Your task to perform on an android device: Open Google Maps Image 0: 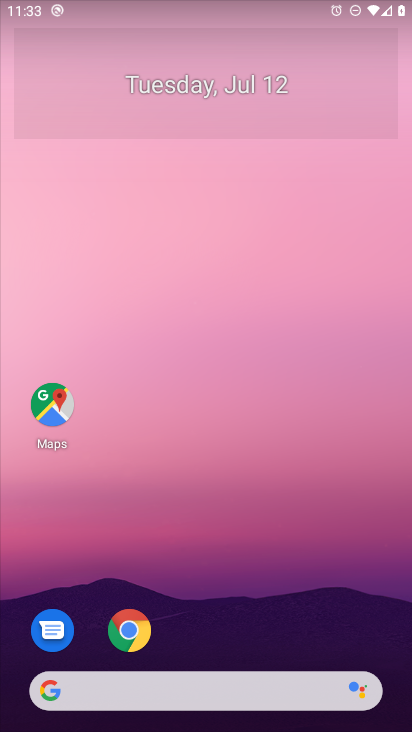
Step 0: press home button
Your task to perform on an android device: Open Google Maps Image 1: 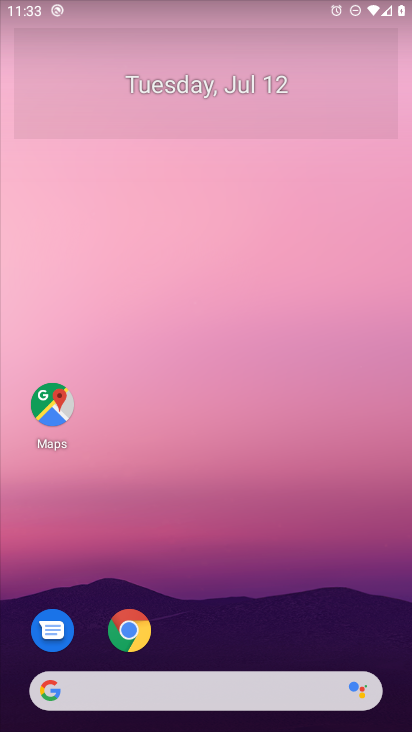
Step 1: click (48, 397)
Your task to perform on an android device: Open Google Maps Image 2: 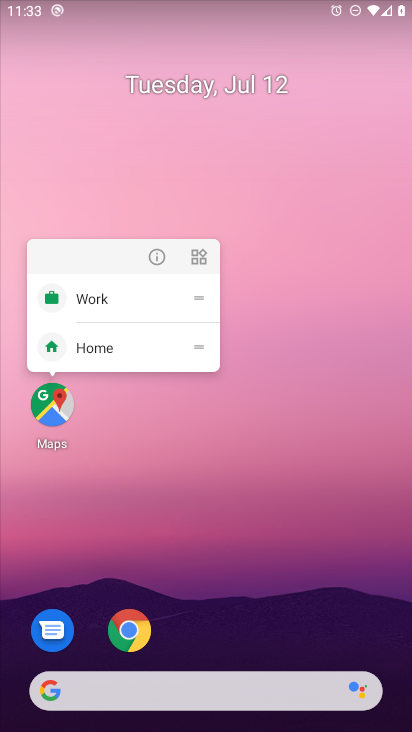
Step 2: click (53, 410)
Your task to perform on an android device: Open Google Maps Image 3: 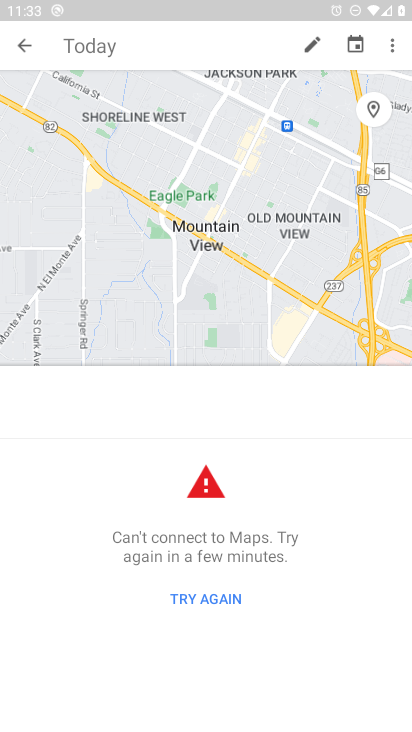
Step 3: click (226, 598)
Your task to perform on an android device: Open Google Maps Image 4: 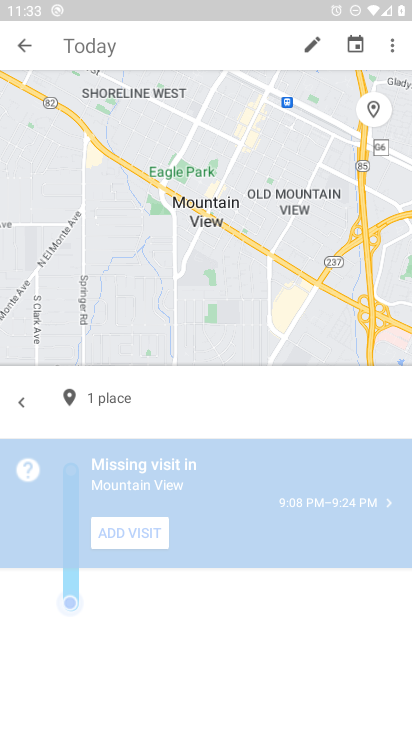
Step 4: task complete